Your task to perform on an android device: uninstall "Booking.com: Hotels and more" Image 0: 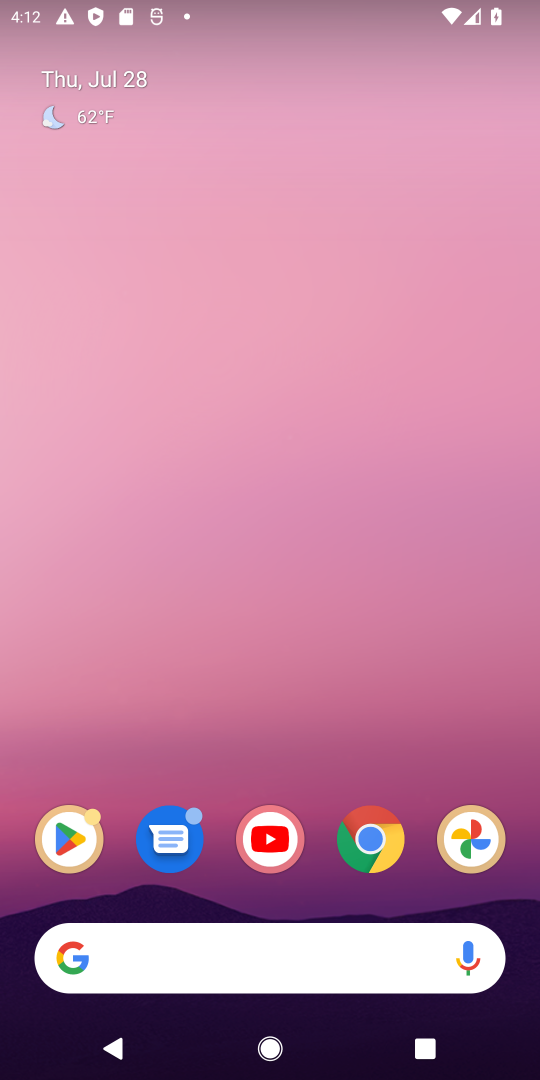
Step 0: drag from (417, 730) to (180, 99)
Your task to perform on an android device: uninstall "Booking.com: Hotels and more" Image 1: 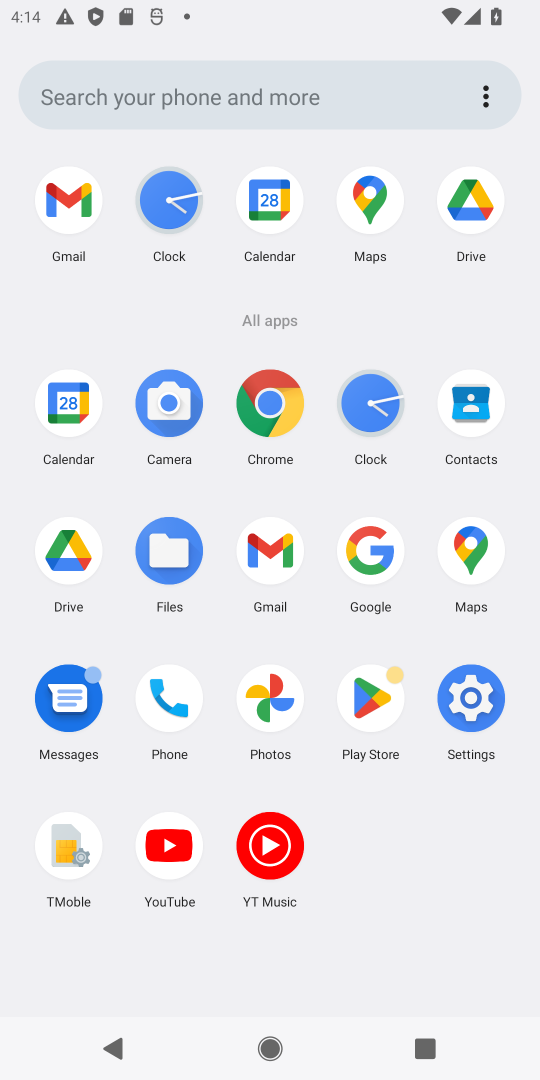
Step 1: click (353, 708)
Your task to perform on an android device: uninstall "Booking.com: Hotels and more" Image 2: 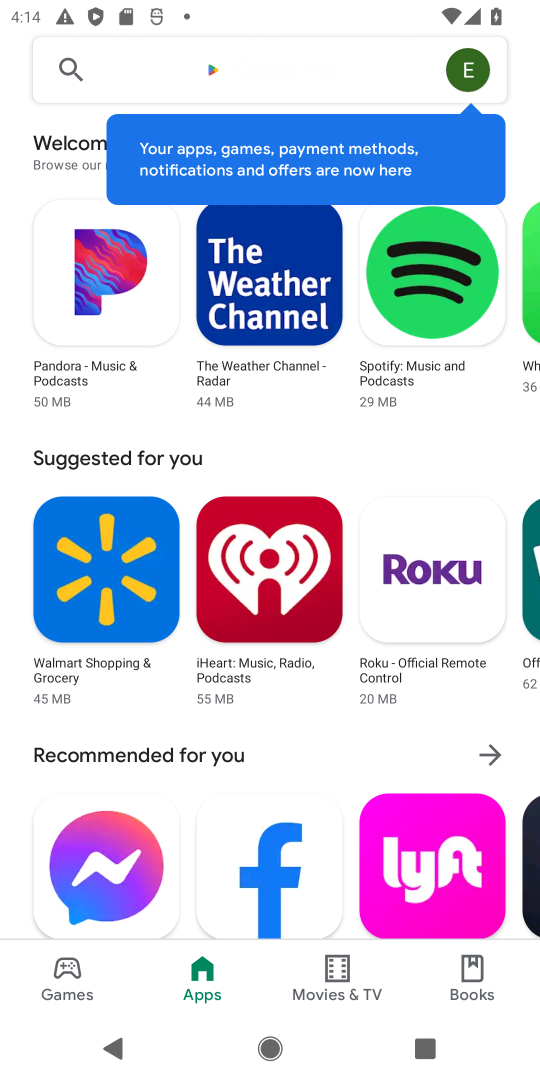
Step 2: click (236, 81)
Your task to perform on an android device: uninstall "Booking.com: Hotels and more" Image 3: 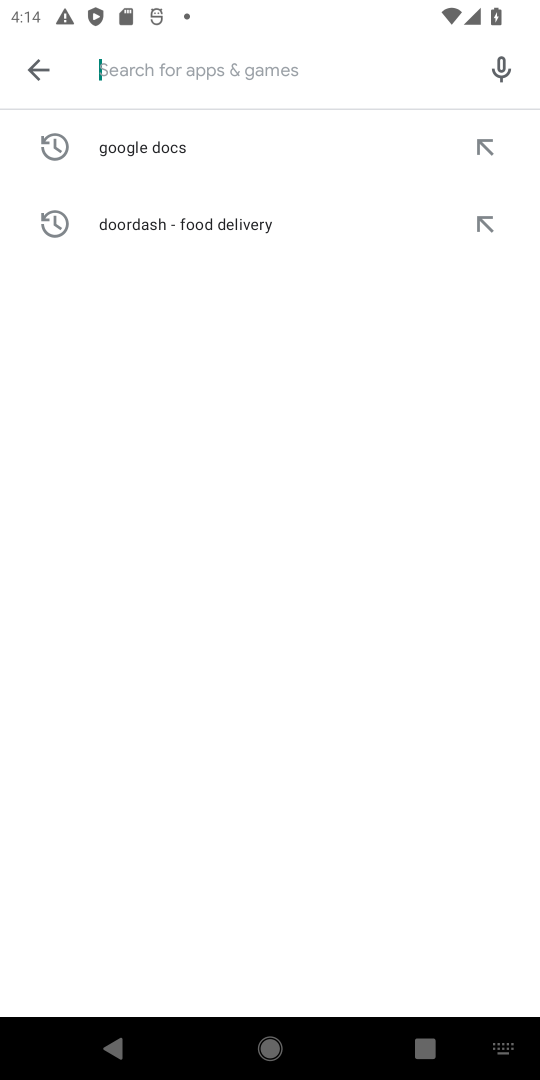
Step 3: type "Booking.com: Hotels and more"
Your task to perform on an android device: uninstall "Booking.com: Hotels and more" Image 4: 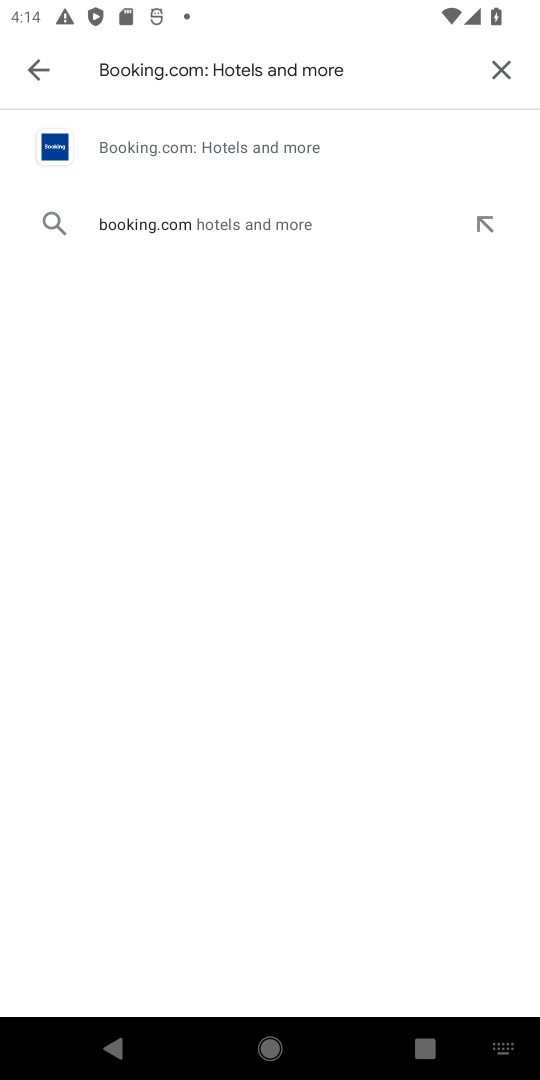
Step 4: click (202, 138)
Your task to perform on an android device: uninstall "Booking.com: Hotels and more" Image 5: 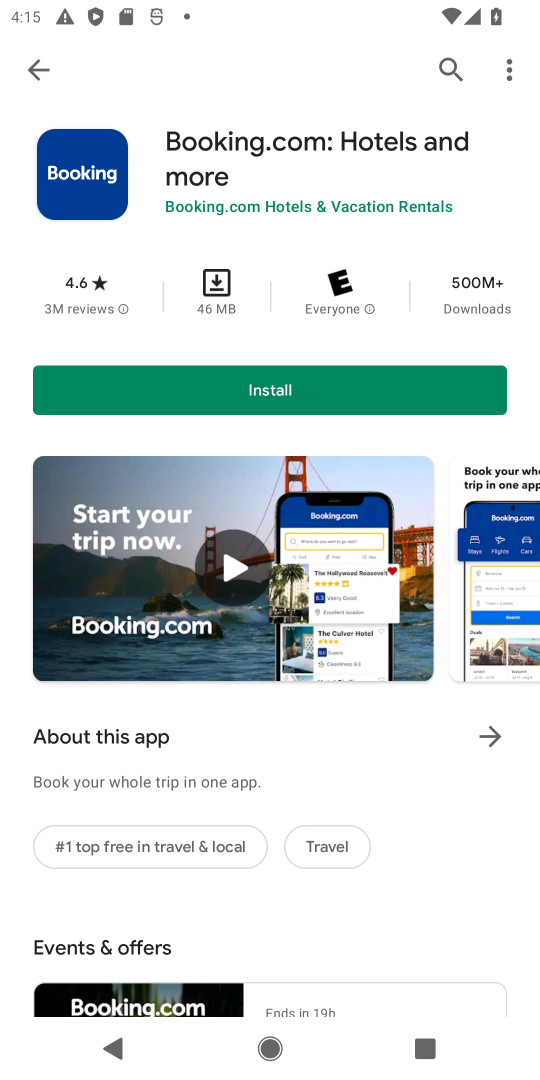
Step 5: task complete